Your task to perform on an android device: Open battery settings Image 0: 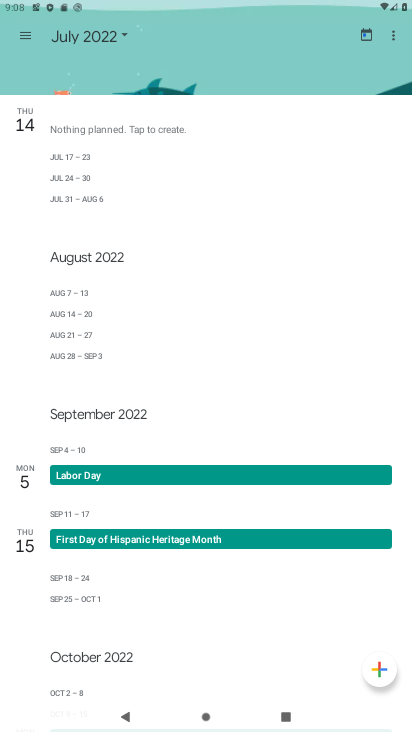
Step 0: press home button
Your task to perform on an android device: Open battery settings Image 1: 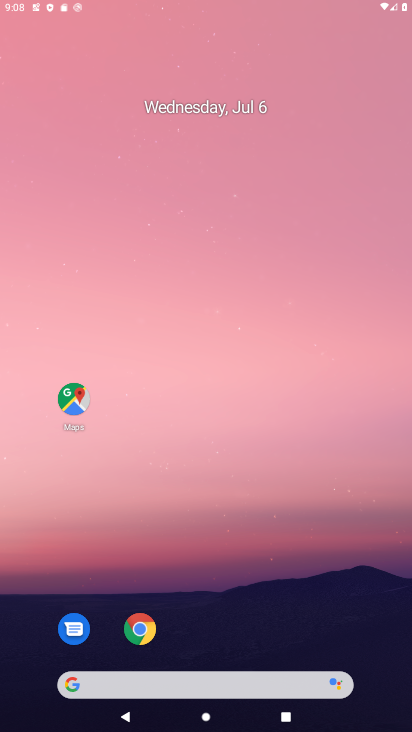
Step 1: drag from (227, 634) to (254, 44)
Your task to perform on an android device: Open battery settings Image 2: 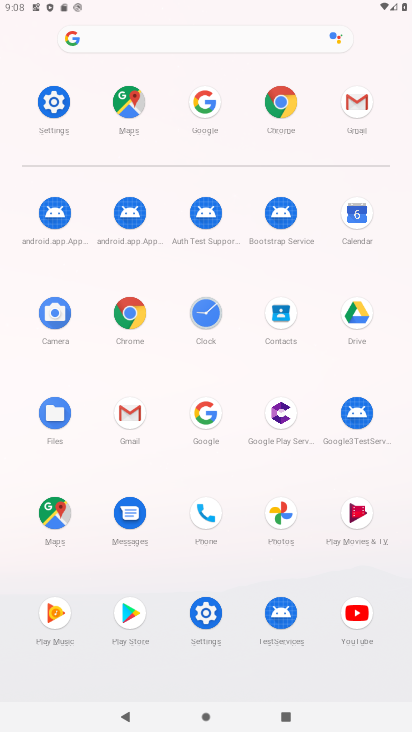
Step 2: click (49, 104)
Your task to perform on an android device: Open battery settings Image 3: 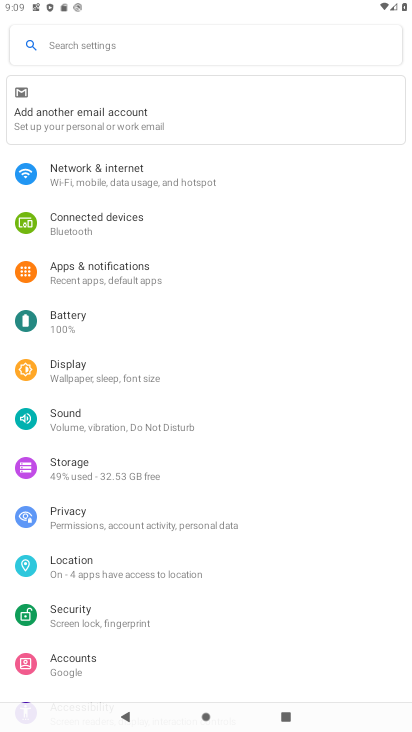
Step 3: click (66, 318)
Your task to perform on an android device: Open battery settings Image 4: 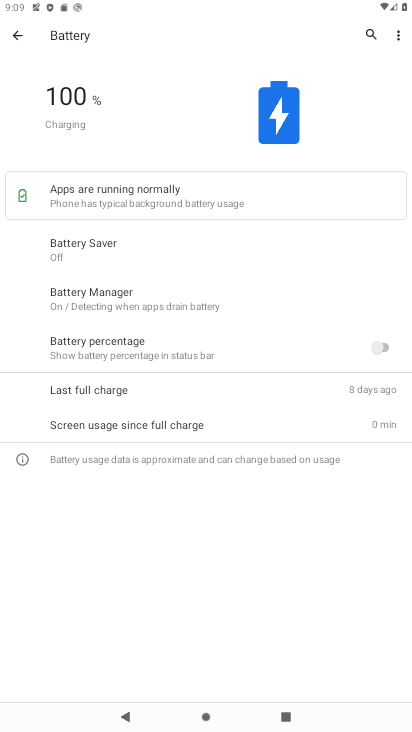
Step 4: task complete